Your task to perform on an android device: Open Google Chrome and click the shortcut for Amazon.com Image 0: 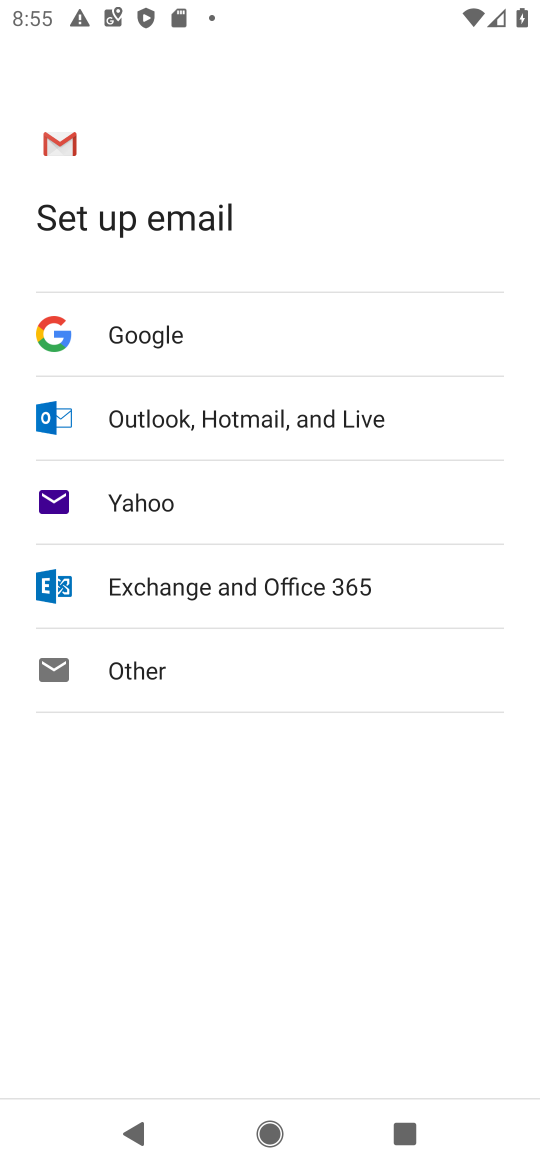
Step 0: press home button
Your task to perform on an android device: Open Google Chrome and click the shortcut for Amazon.com Image 1: 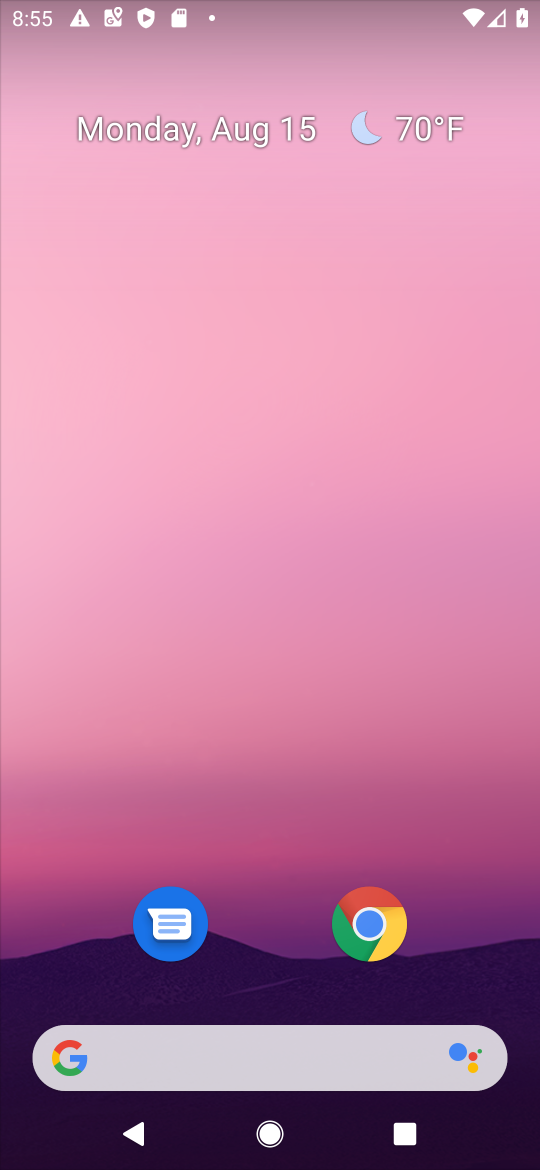
Step 1: click (370, 929)
Your task to perform on an android device: Open Google Chrome and click the shortcut for Amazon.com Image 2: 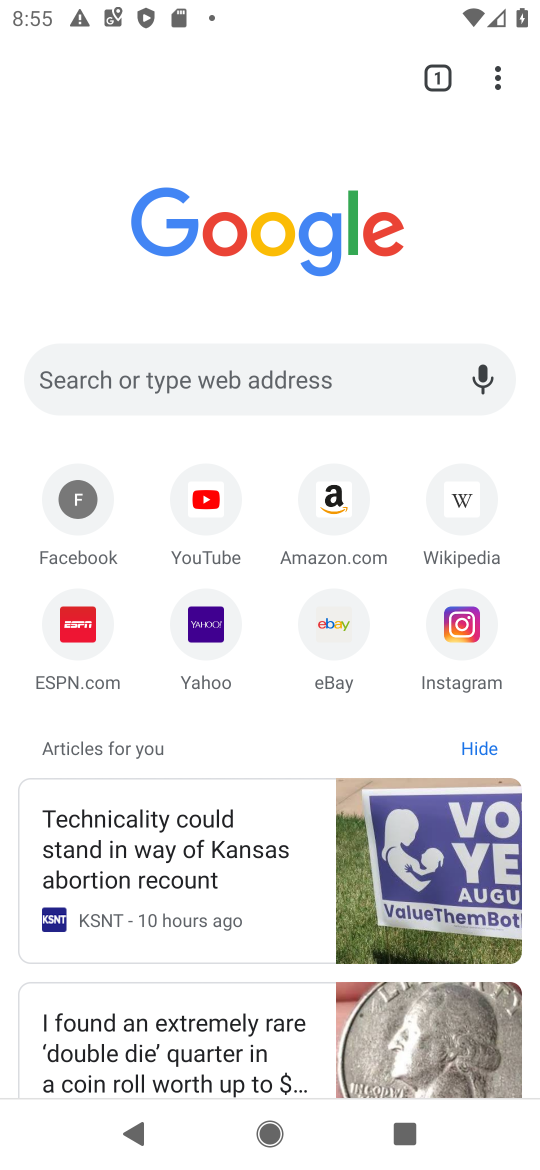
Step 2: click (495, 93)
Your task to perform on an android device: Open Google Chrome and click the shortcut for Amazon.com Image 3: 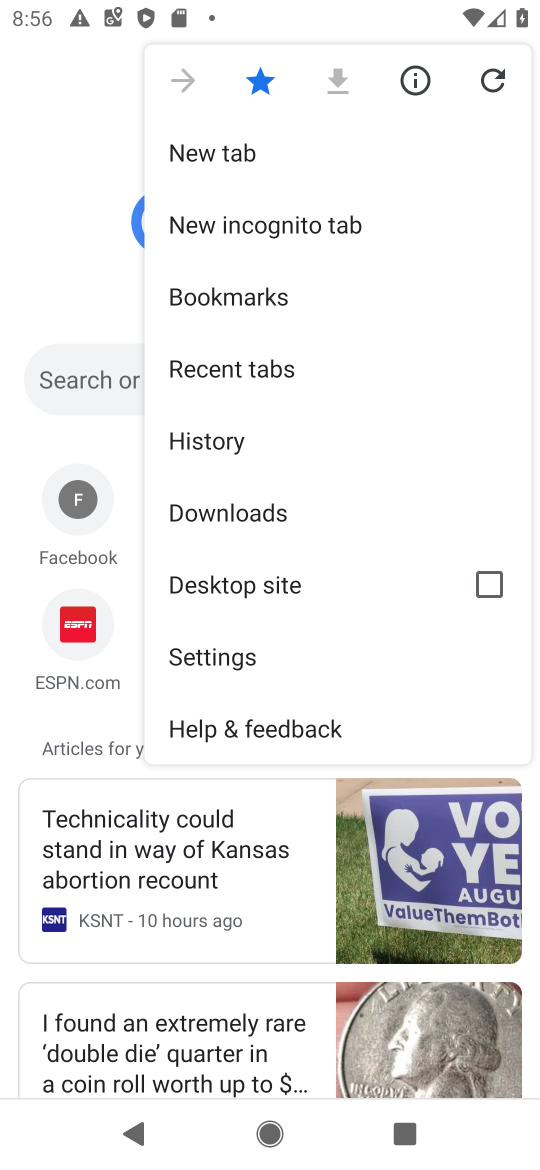
Step 3: click (113, 193)
Your task to perform on an android device: Open Google Chrome and click the shortcut for Amazon.com Image 4: 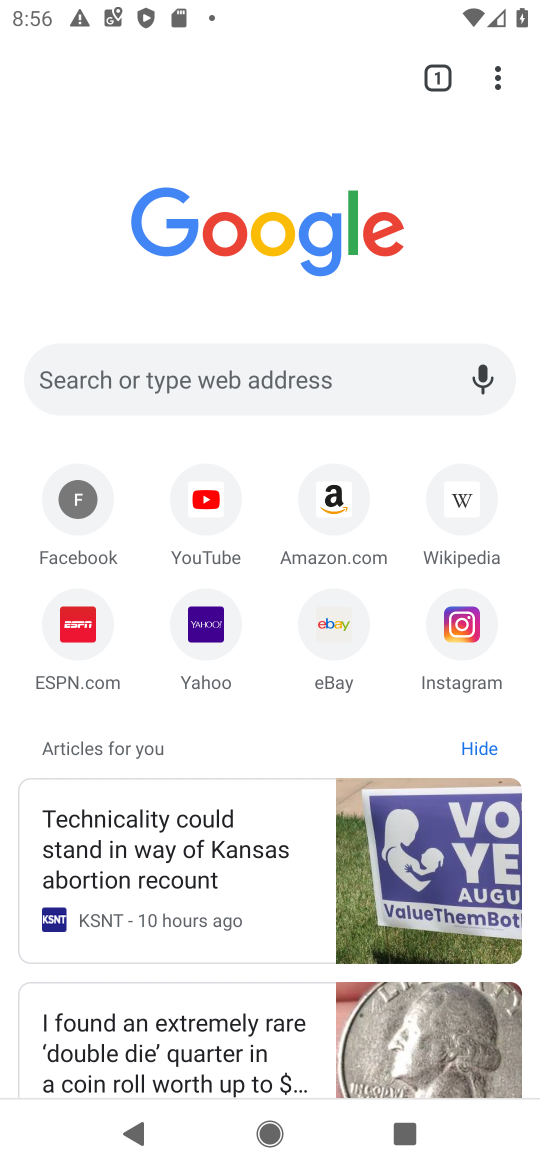
Step 4: click (339, 501)
Your task to perform on an android device: Open Google Chrome and click the shortcut for Amazon.com Image 5: 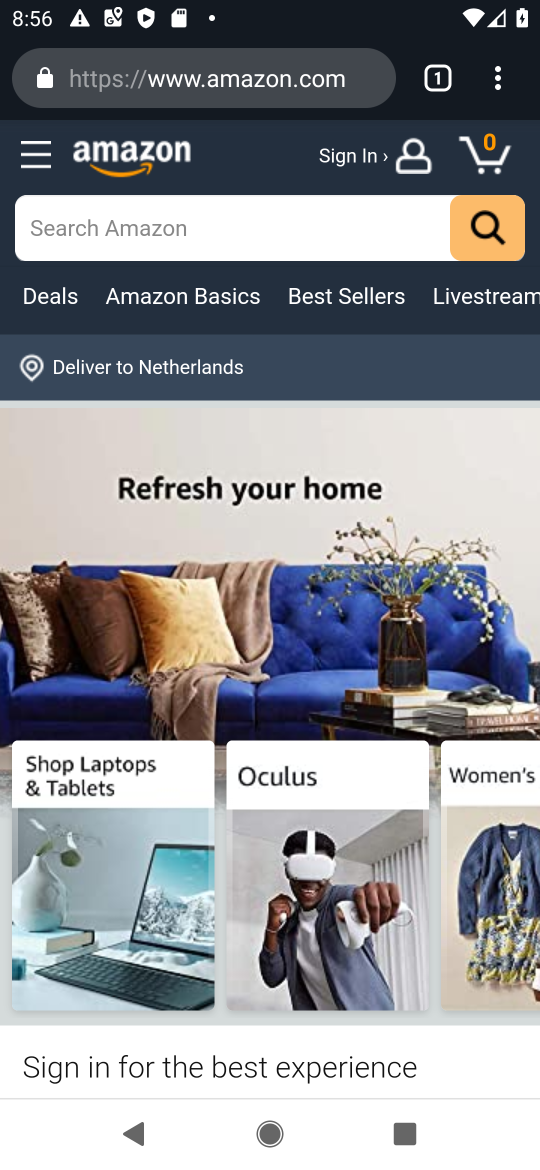
Step 5: task complete